Your task to perform on an android device: Search for duracell triple a on bestbuy, select the first entry, and add it to the cart. Image 0: 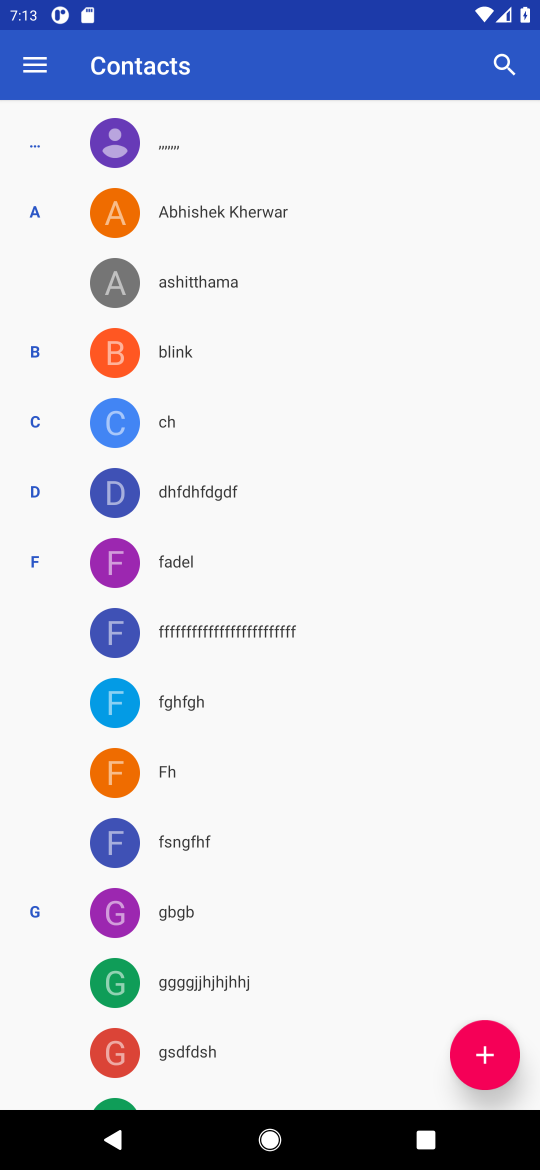
Step 0: press home button
Your task to perform on an android device: Search for duracell triple a on bestbuy, select the first entry, and add it to the cart. Image 1: 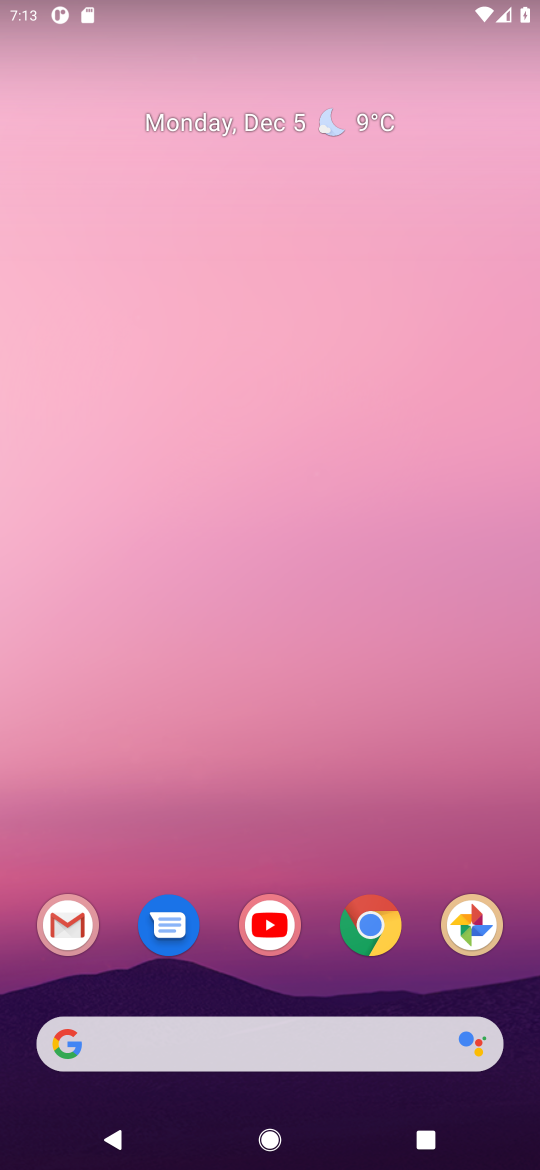
Step 1: click (375, 936)
Your task to perform on an android device: Search for duracell triple a on bestbuy, select the first entry, and add it to the cart. Image 2: 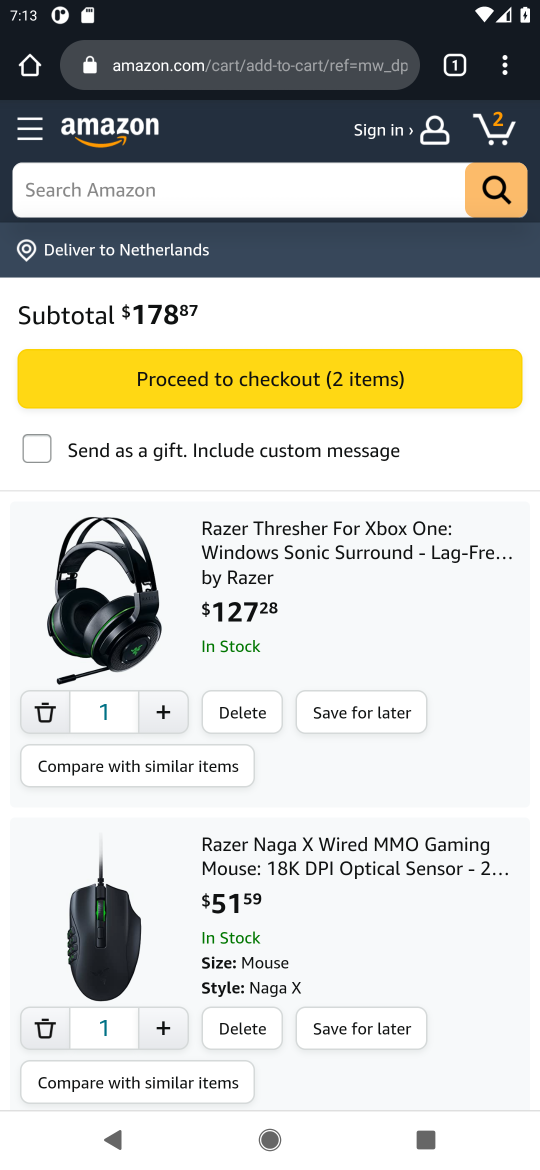
Step 2: click (228, 57)
Your task to perform on an android device: Search for duracell triple a on bestbuy, select the first entry, and add it to the cart. Image 3: 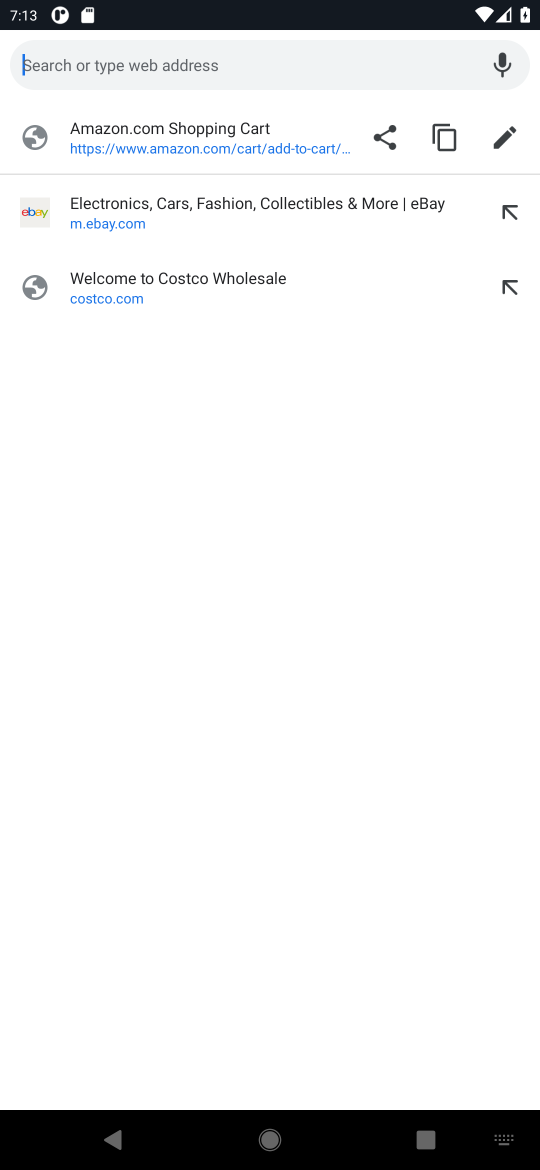
Step 3: type "bestbuy.com"
Your task to perform on an android device: Search for duracell triple a on bestbuy, select the first entry, and add it to the cart. Image 4: 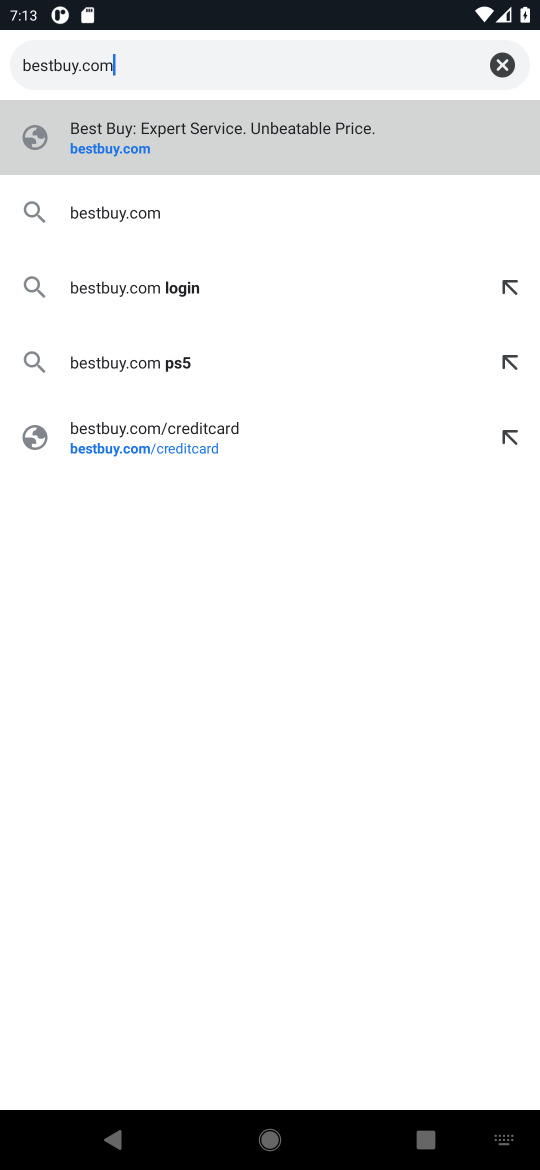
Step 4: click (106, 150)
Your task to perform on an android device: Search for duracell triple a on bestbuy, select the first entry, and add it to the cart. Image 5: 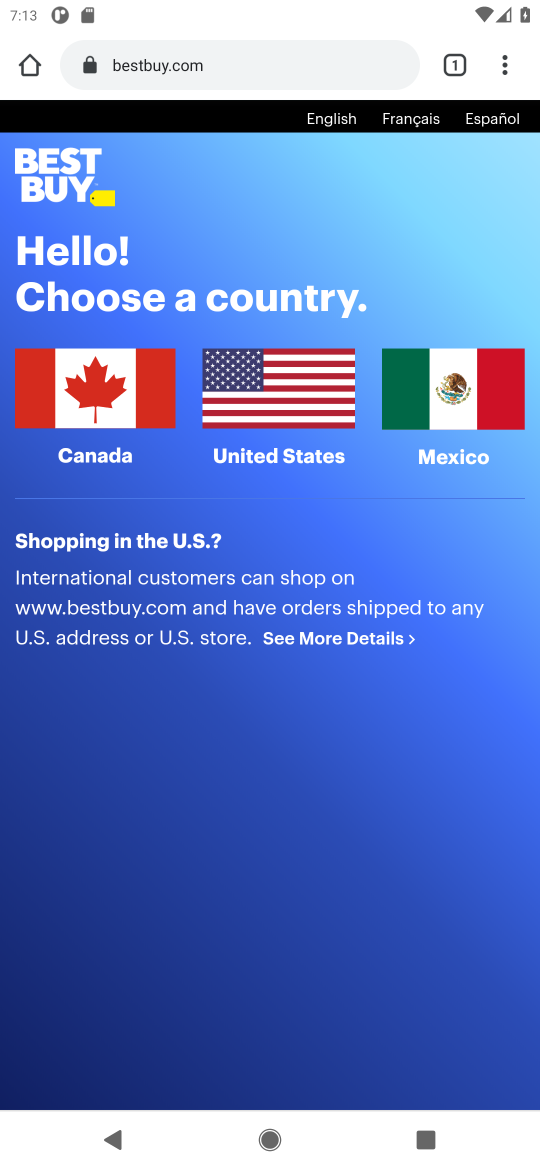
Step 5: click (260, 390)
Your task to perform on an android device: Search for duracell triple a on bestbuy, select the first entry, and add it to the cart. Image 6: 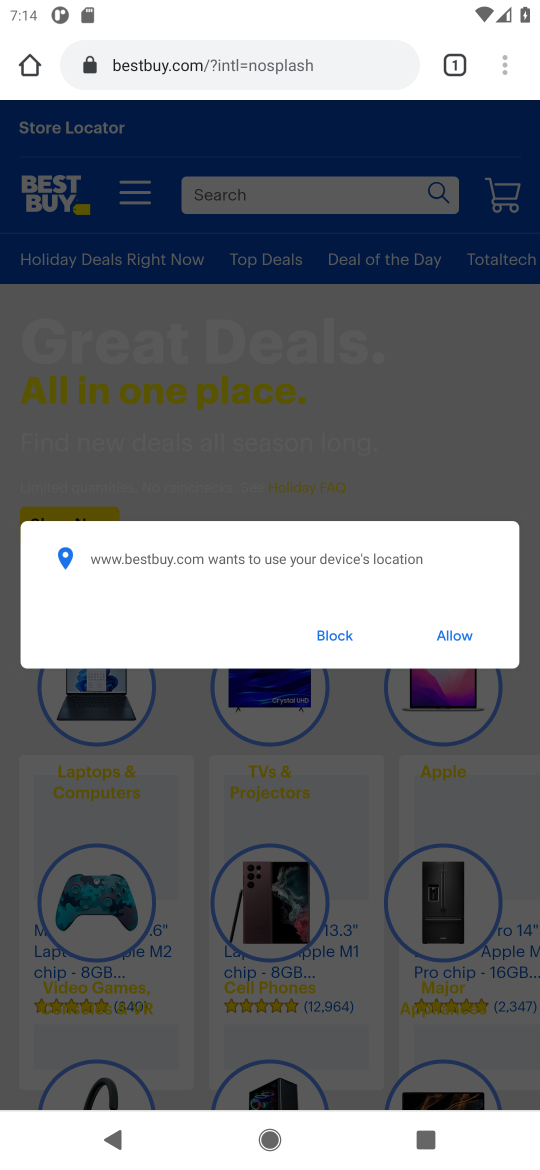
Step 6: click (321, 644)
Your task to perform on an android device: Search for duracell triple a on bestbuy, select the first entry, and add it to the cart. Image 7: 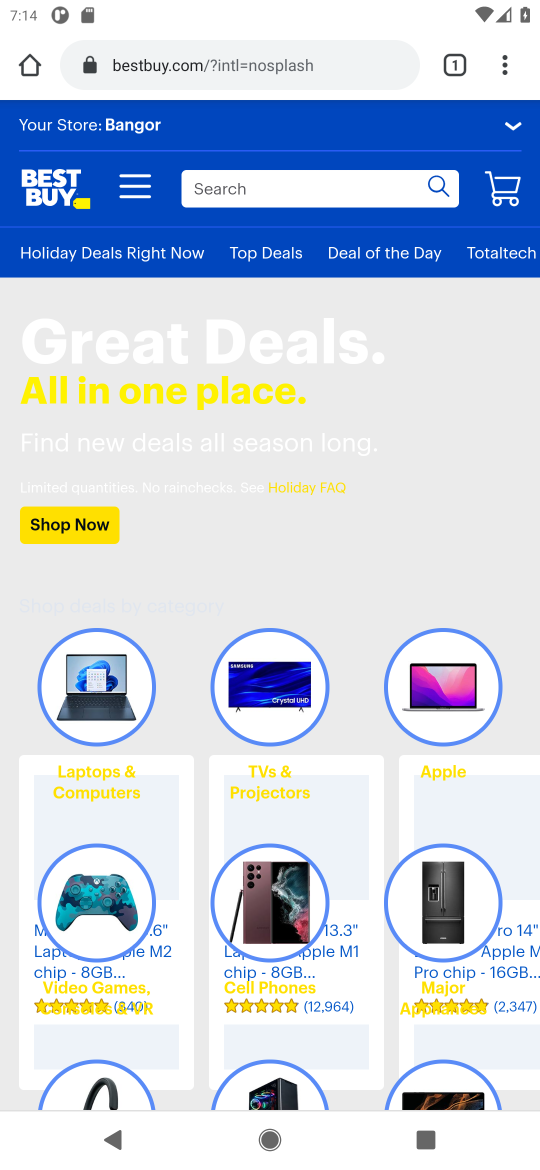
Step 7: click (205, 192)
Your task to perform on an android device: Search for duracell triple a on bestbuy, select the first entry, and add it to the cart. Image 8: 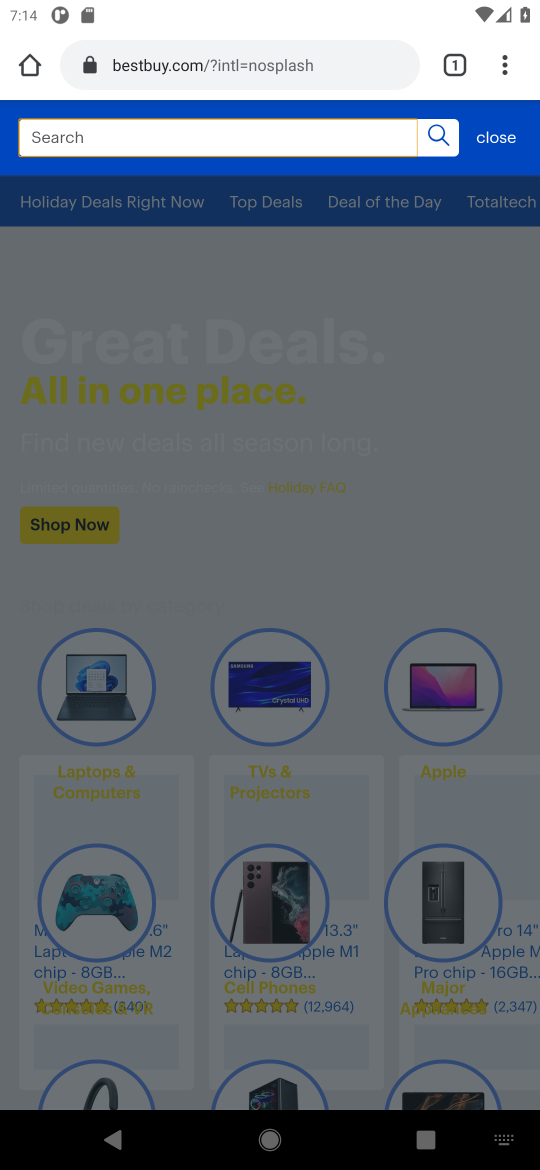
Step 8: type "duracell triple a "
Your task to perform on an android device: Search for duracell triple a on bestbuy, select the first entry, and add it to the cart. Image 9: 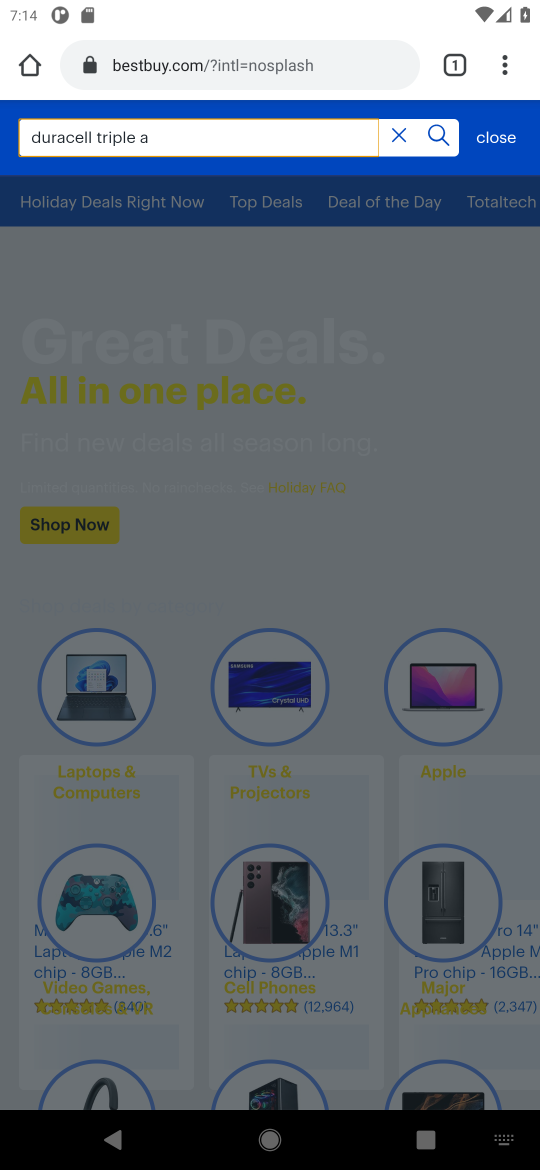
Step 9: click (443, 139)
Your task to perform on an android device: Search for duracell triple a on bestbuy, select the first entry, and add it to the cart. Image 10: 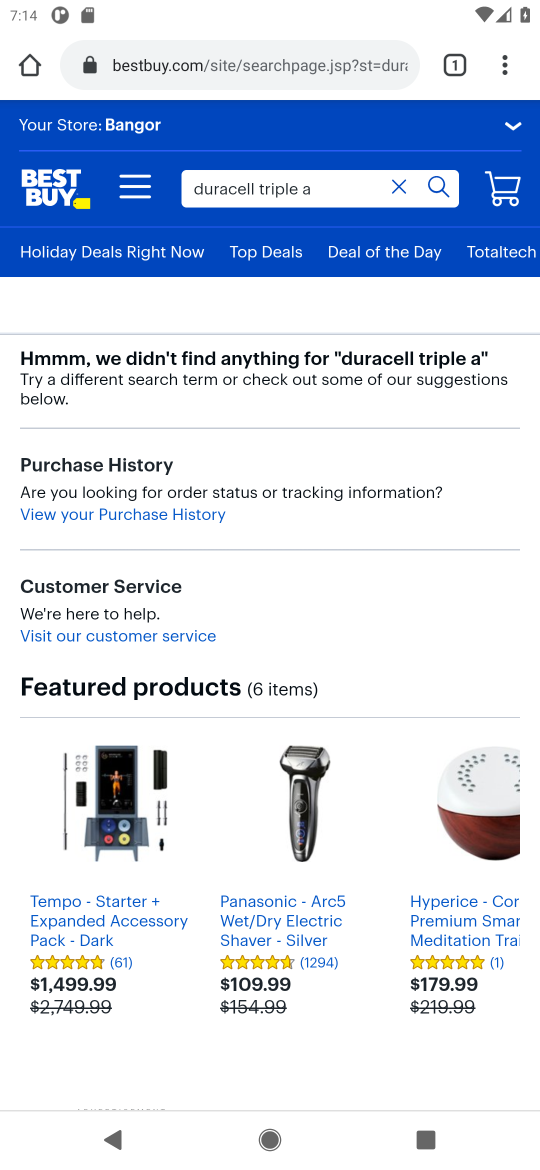
Step 10: task complete